Your task to perform on an android device: add a contact in the contacts app Image 0: 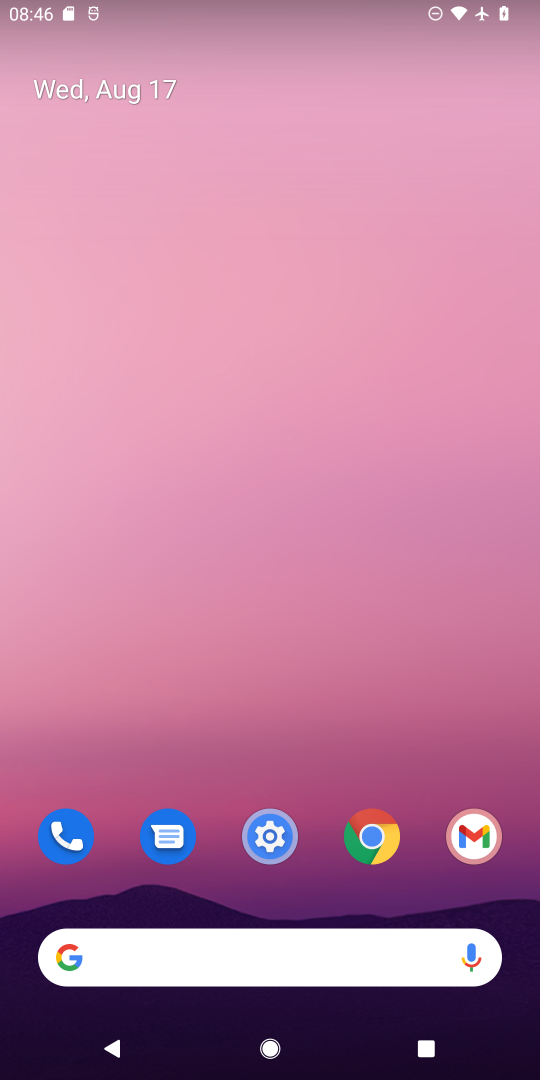
Step 0: drag from (234, 408) to (247, 237)
Your task to perform on an android device: add a contact in the contacts app Image 1: 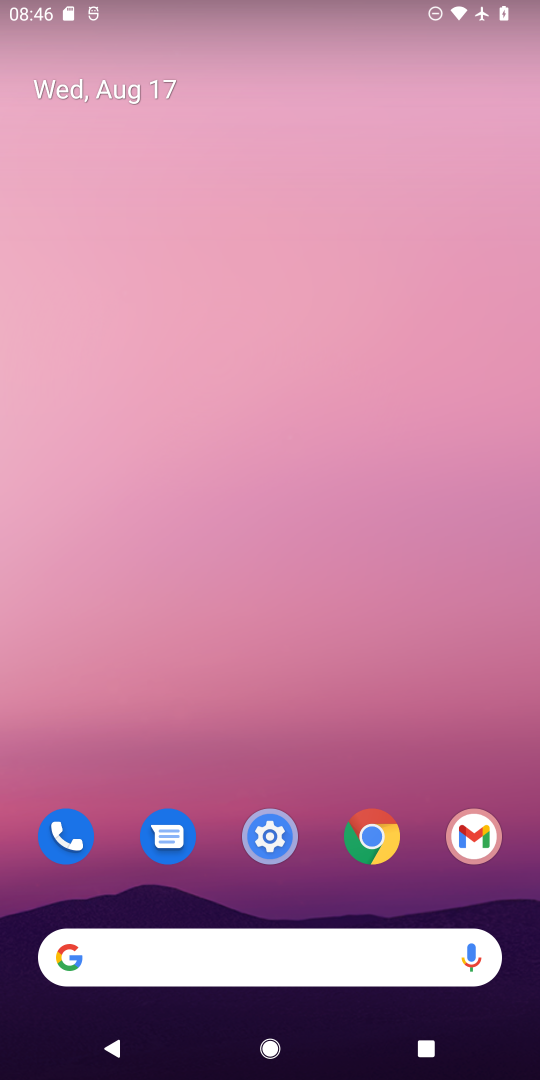
Step 1: drag from (261, 886) to (269, 254)
Your task to perform on an android device: add a contact in the contacts app Image 2: 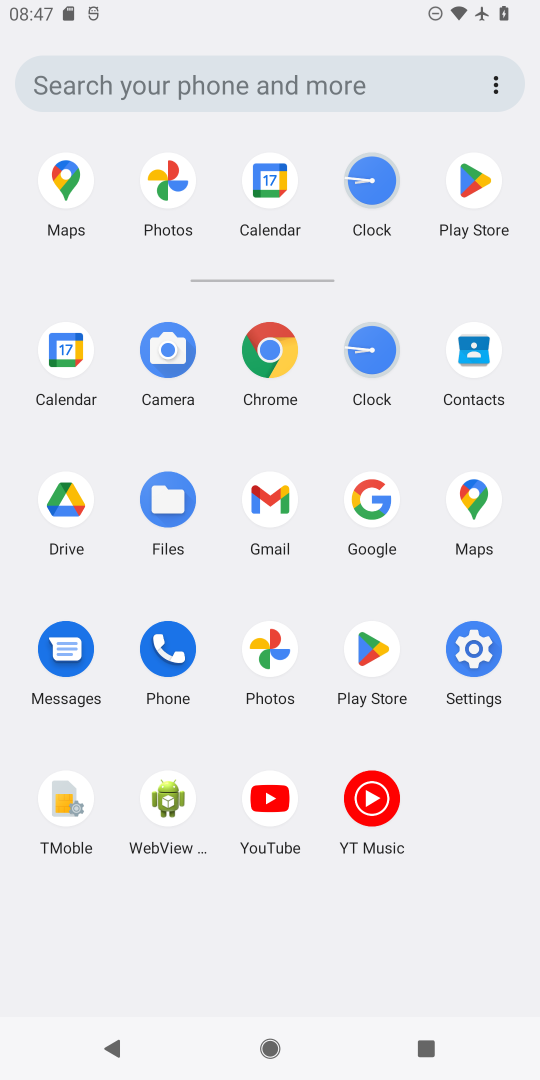
Step 2: click (476, 344)
Your task to perform on an android device: add a contact in the contacts app Image 3: 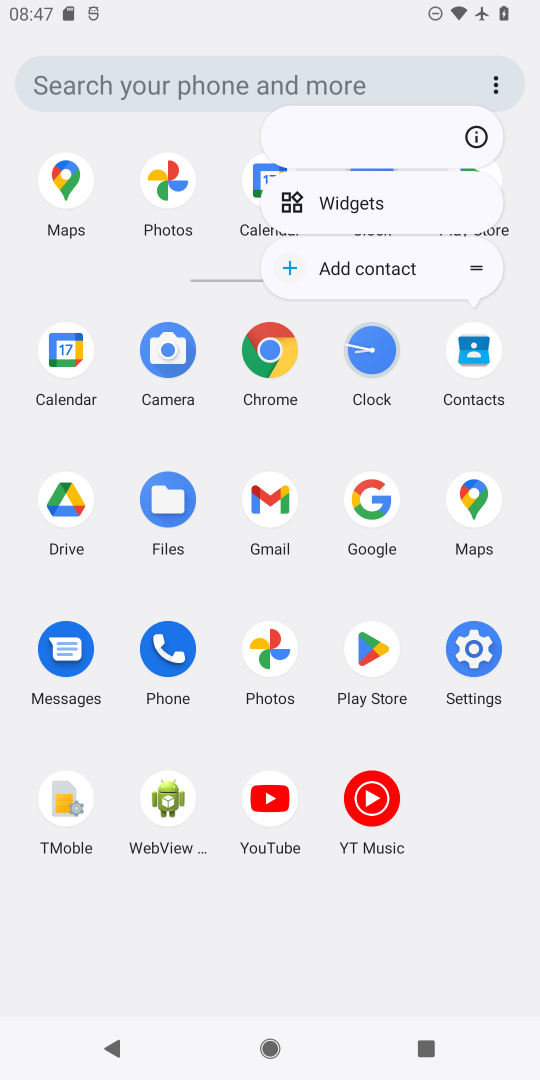
Step 3: click (496, 356)
Your task to perform on an android device: add a contact in the contacts app Image 4: 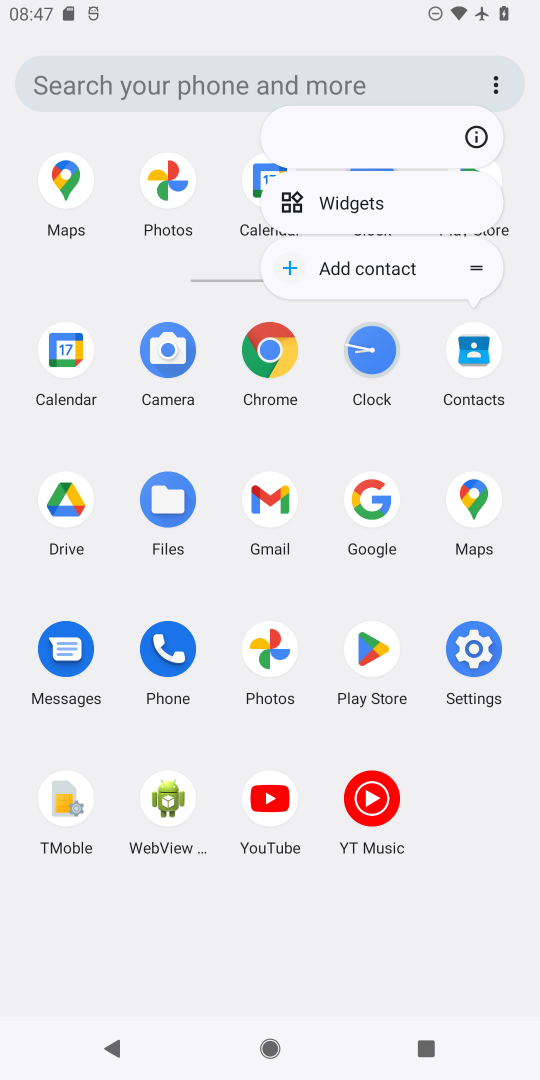
Step 4: click (456, 356)
Your task to perform on an android device: add a contact in the contacts app Image 5: 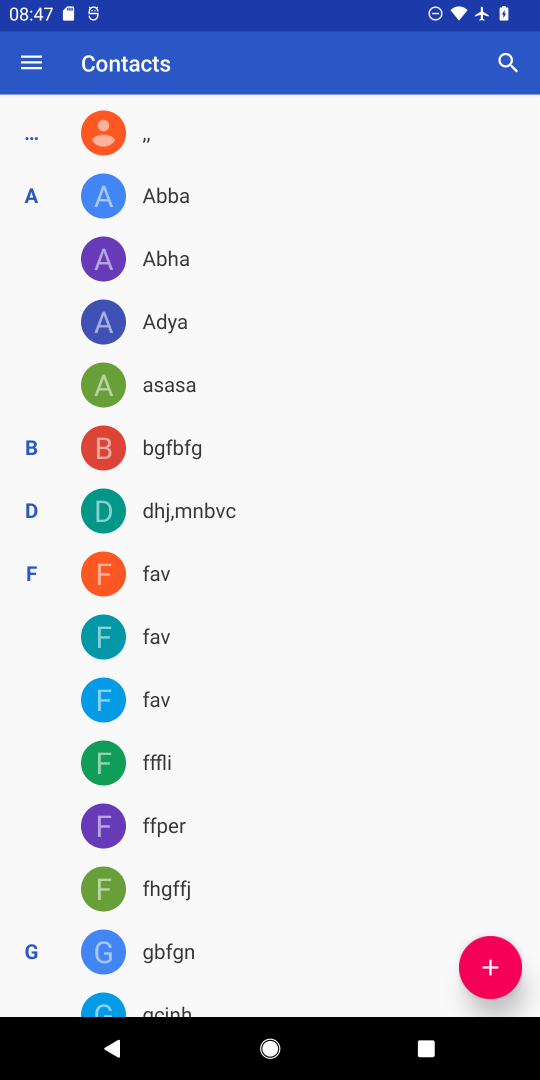
Step 5: click (495, 955)
Your task to perform on an android device: add a contact in the contacts app Image 6: 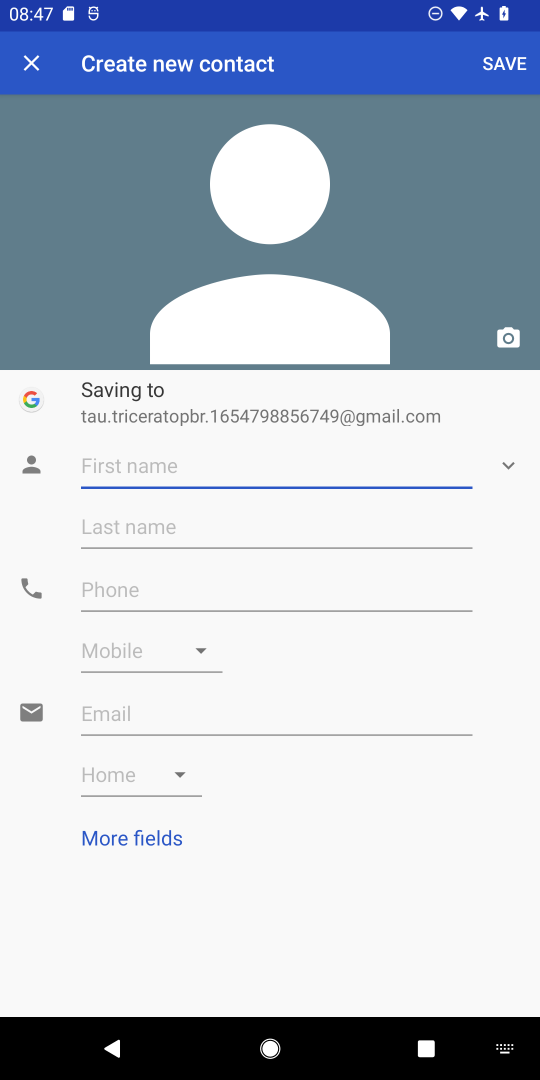
Step 6: click (249, 456)
Your task to perform on an android device: add a contact in the contacts app Image 7: 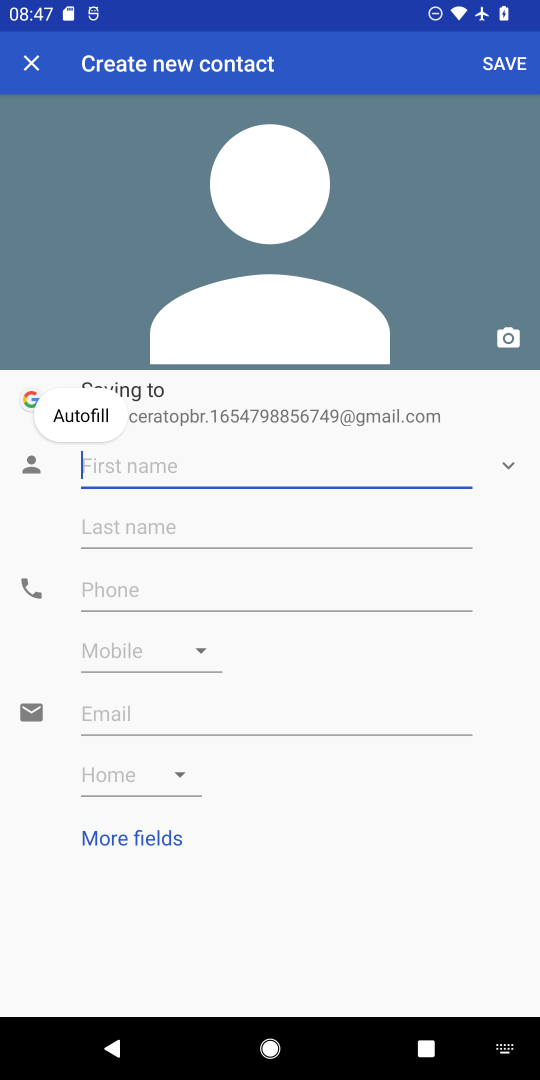
Step 7: type "saroj "
Your task to perform on an android device: add a contact in the contacts app Image 8: 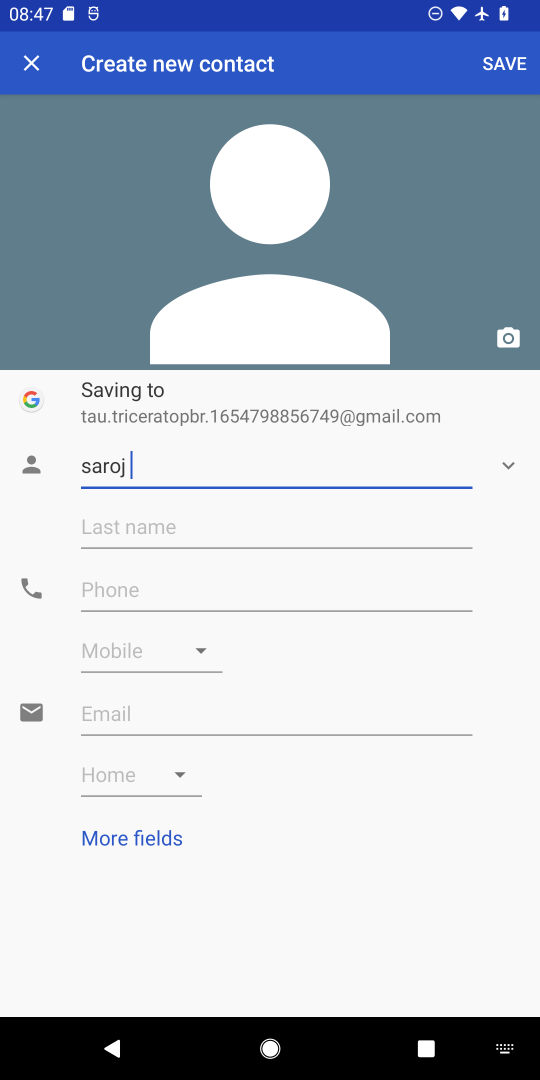
Step 8: click (148, 579)
Your task to perform on an android device: add a contact in the contacts app Image 9: 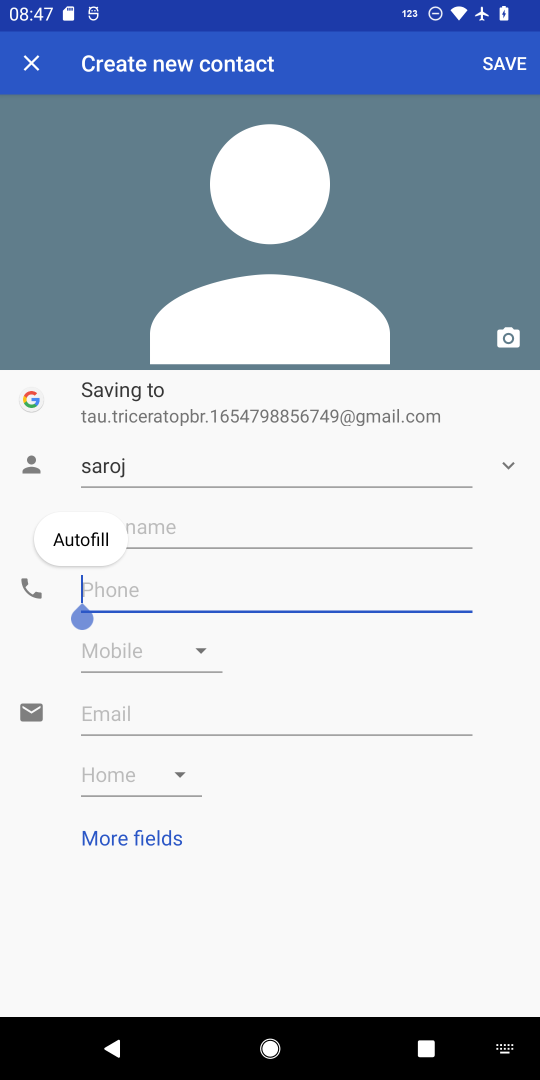
Step 9: type "5665656566556 "
Your task to perform on an android device: add a contact in the contacts app Image 10: 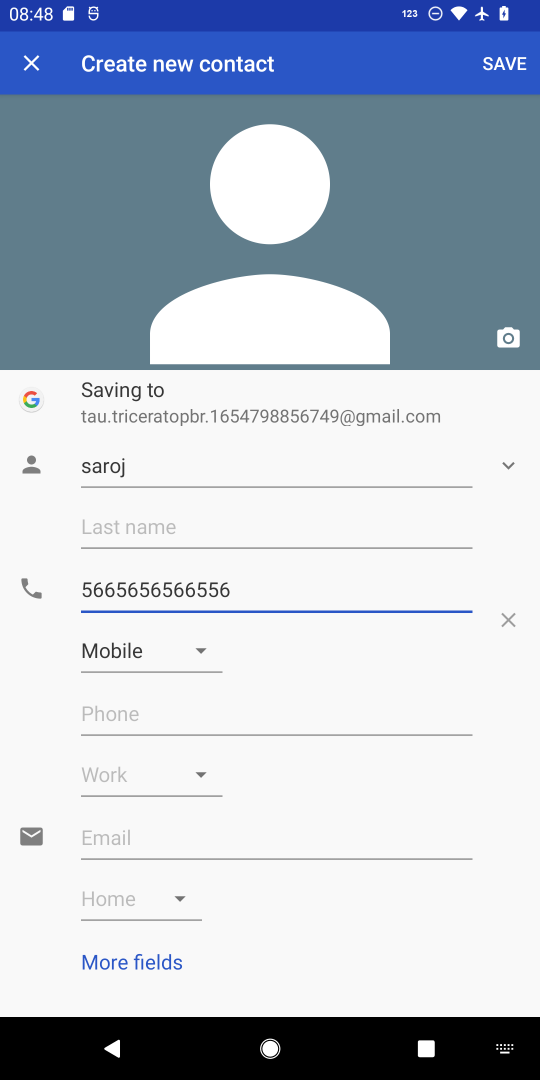
Step 10: click (479, 51)
Your task to perform on an android device: add a contact in the contacts app Image 11: 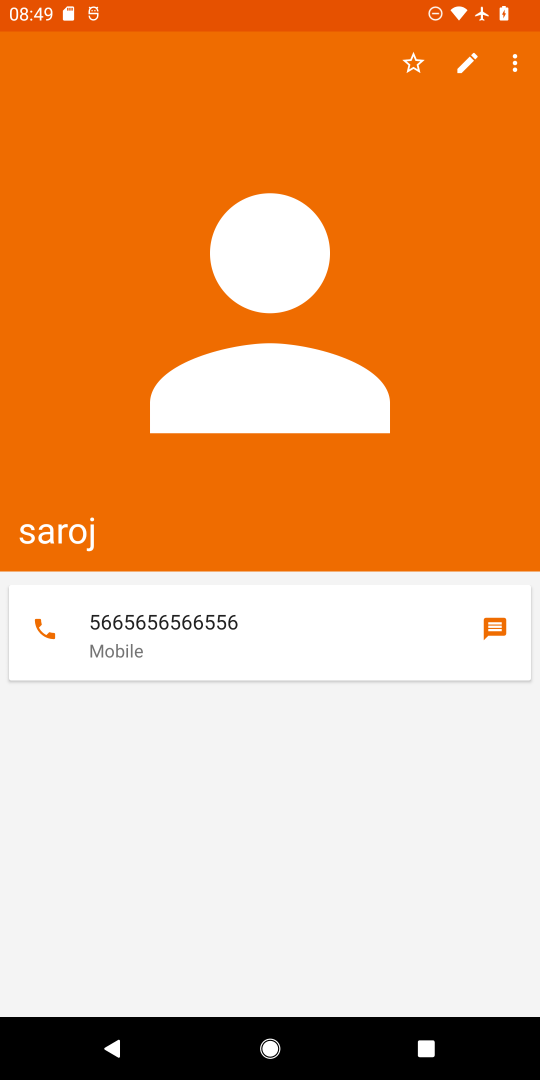
Step 11: task complete